Your task to perform on an android device: turn on improve location accuracy Image 0: 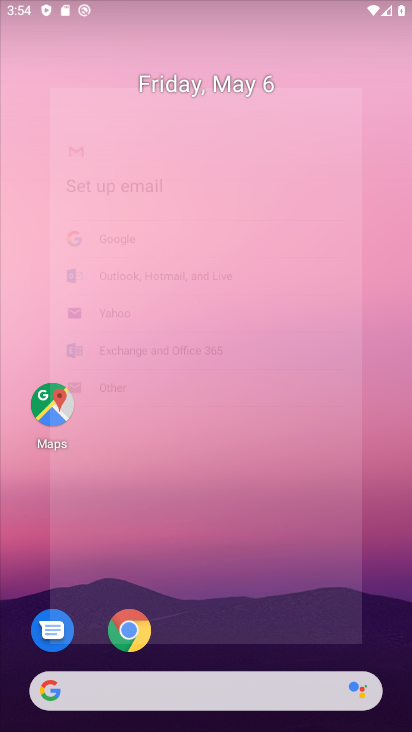
Step 0: drag from (208, 659) to (333, 134)
Your task to perform on an android device: turn on improve location accuracy Image 1: 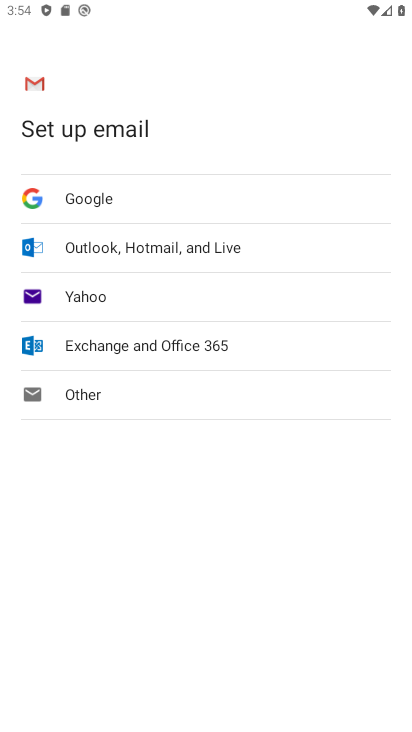
Step 1: press home button
Your task to perform on an android device: turn on improve location accuracy Image 2: 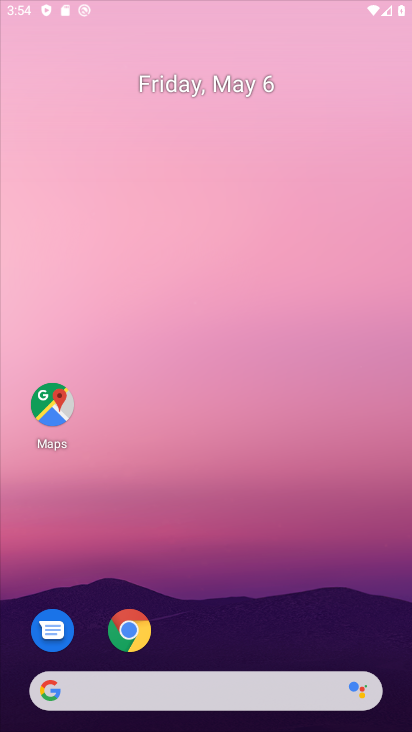
Step 2: drag from (277, 626) to (335, 162)
Your task to perform on an android device: turn on improve location accuracy Image 3: 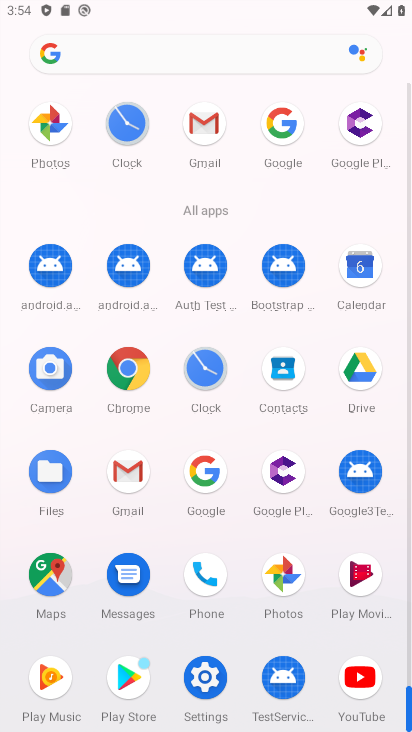
Step 3: drag from (229, 454) to (251, 181)
Your task to perform on an android device: turn on improve location accuracy Image 4: 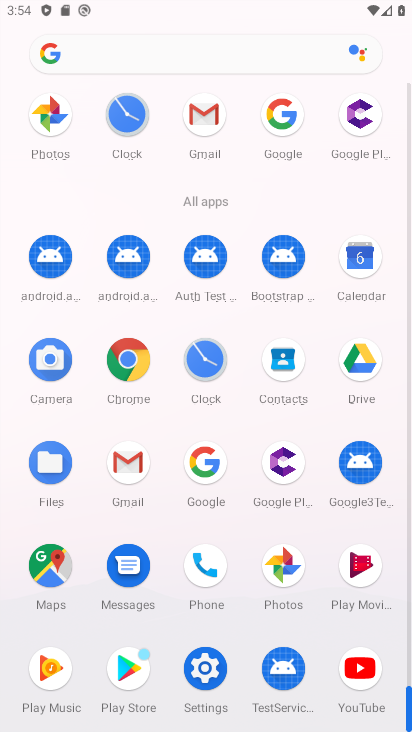
Step 4: click (210, 673)
Your task to perform on an android device: turn on improve location accuracy Image 5: 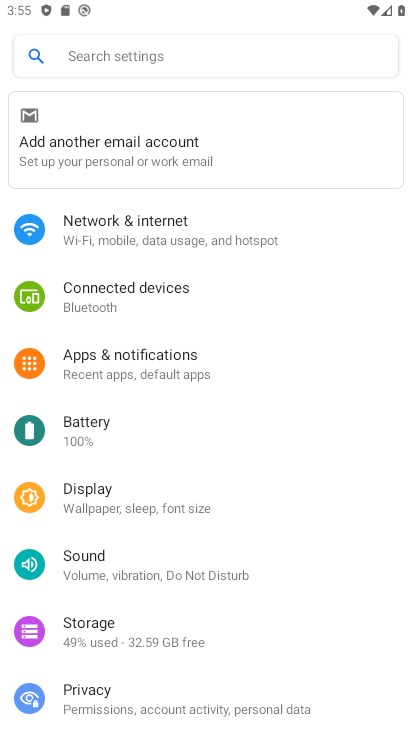
Step 5: drag from (158, 581) to (177, 293)
Your task to perform on an android device: turn on improve location accuracy Image 6: 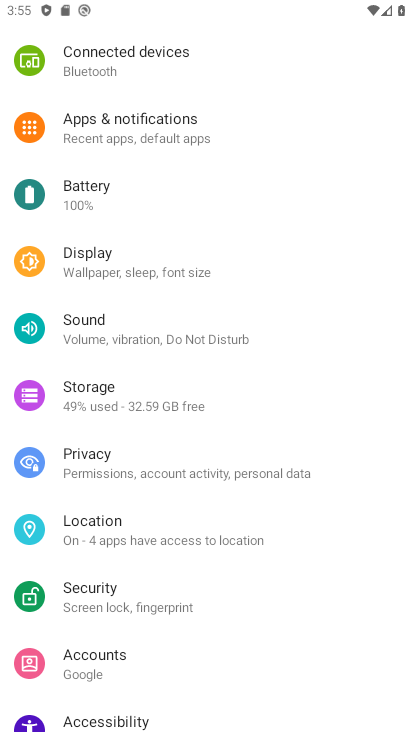
Step 6: click (169, 544)
Your task to perform on an android device: turn on improve location accuracy Image 7: 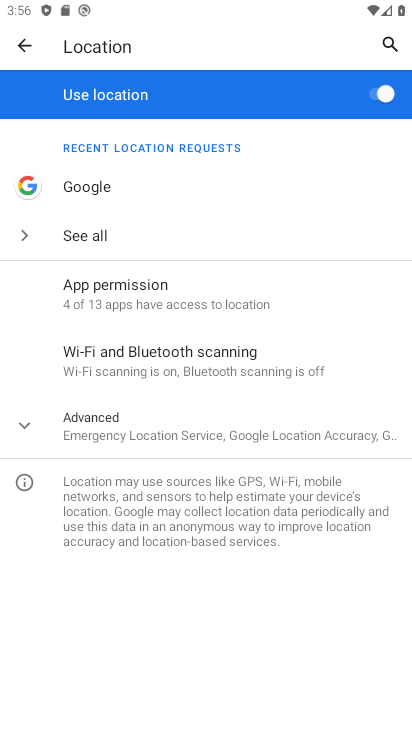
Step 7: click (123, 426)
Your task to perform on an android device: turn on improve location accuracy Image 8: 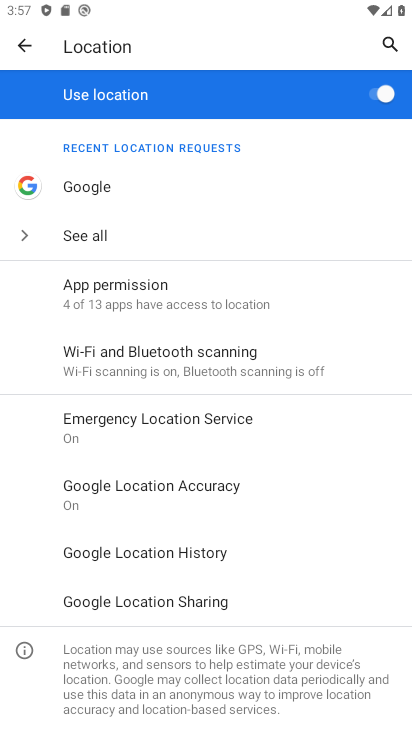
Step 8: click (198, 502)
Your task to perform on an android device: turn on improve location accuracy Image 9: 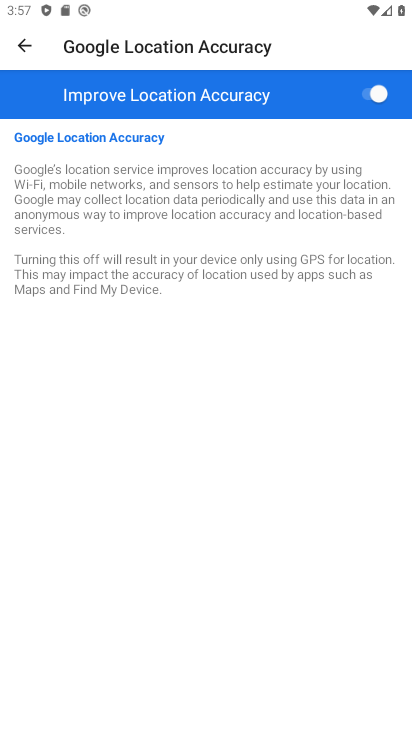
Step 9: task complete